Your task to perform on an android device: turn pop-ups on in chrome Image 0: 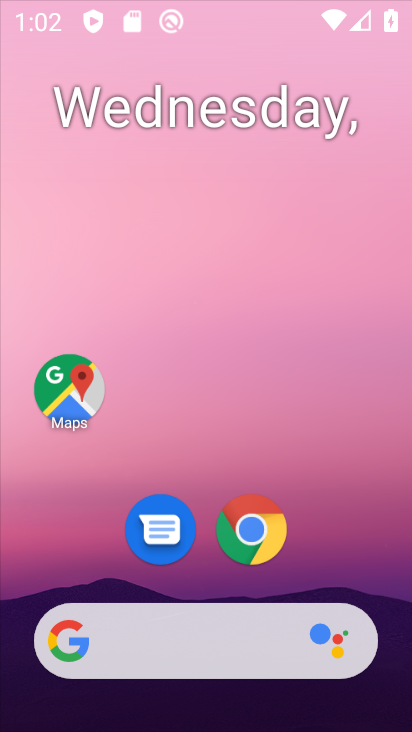
Step 0: click (268, 87)
Your task to perform on an android device: turn pop-ups on in chrome Image 1: 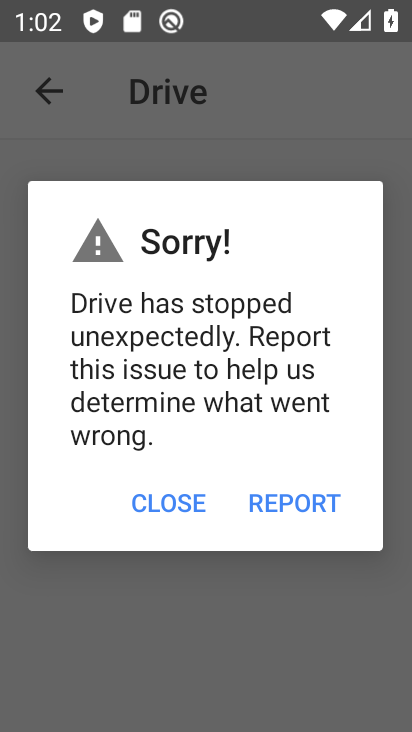
Step 1: press home button
Your task to perform on an android device: turn pop-ups on in chrome Image 2: 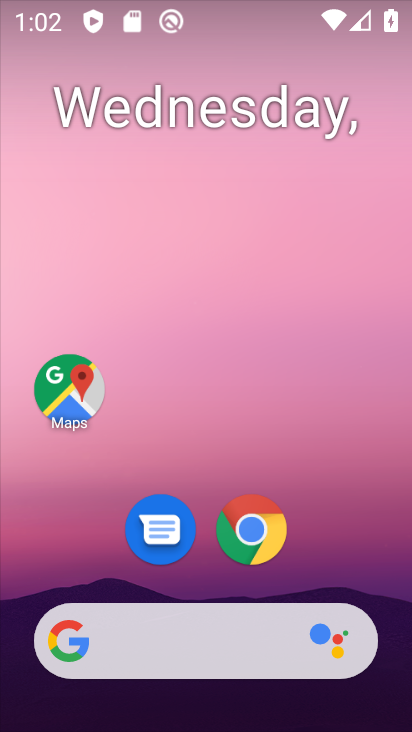
Step 2: click (240, 531)
Your task to perform on an android device: turn pop-ups on in chrome Image 3: 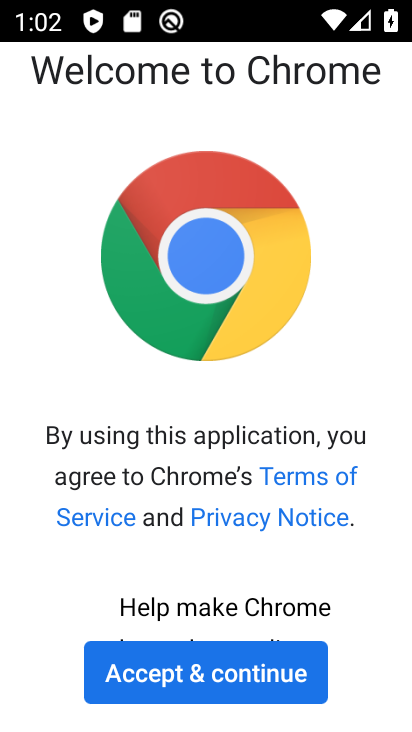
Step 3: click (194, 658)
Your task to perform on an android device: turn pop-ups on in chrome Image 4: 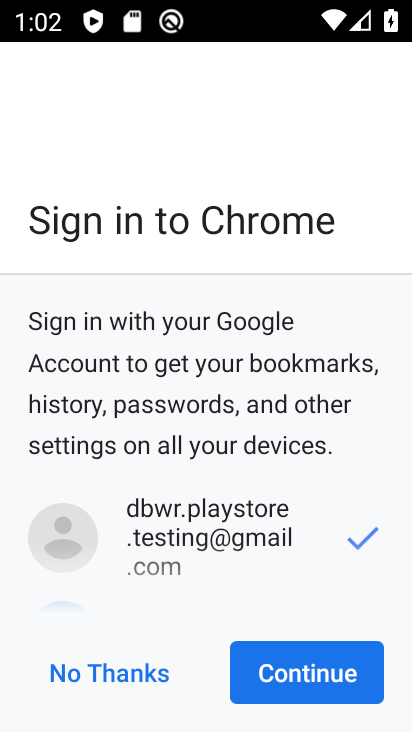
Step 4: click (279, 687)
Your task to perform on an android device: turn pop-ups on in chrome Image 5: 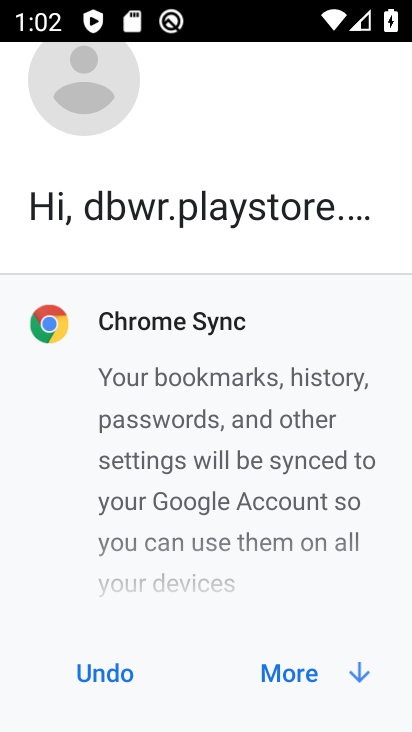
Step 5: click (279, 687)
Your task to perform on an android device: turn pop-ups on in chrome Image 6: 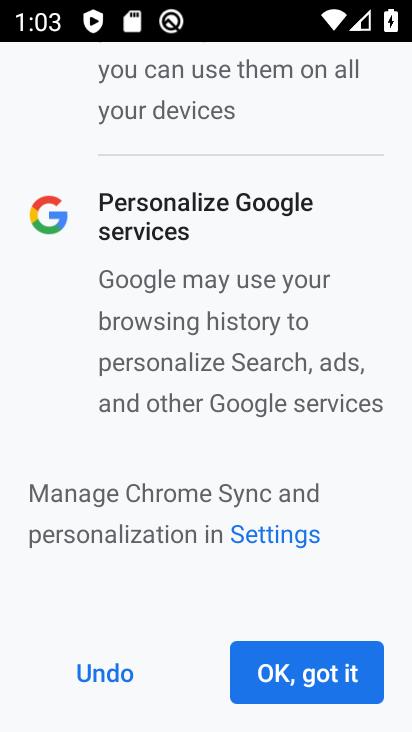
Step 6: click (279, 687)
Your task to perform on an android device: turn pop-ups on in chrome Image 7: 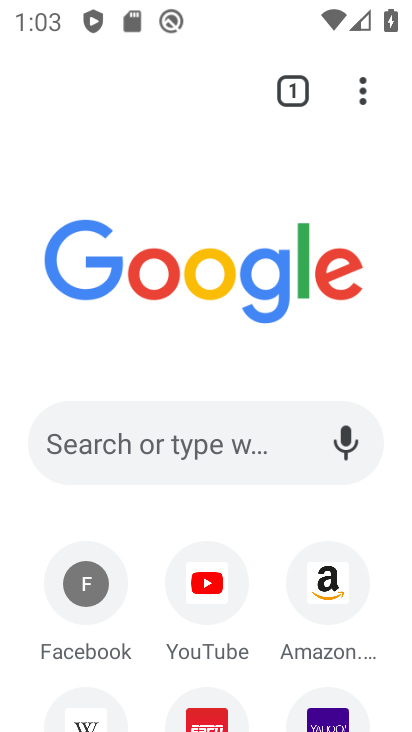
Step 7: click (343, 79)
Your task to perform on an android device: turn pop-ups on in chrome Image 8: 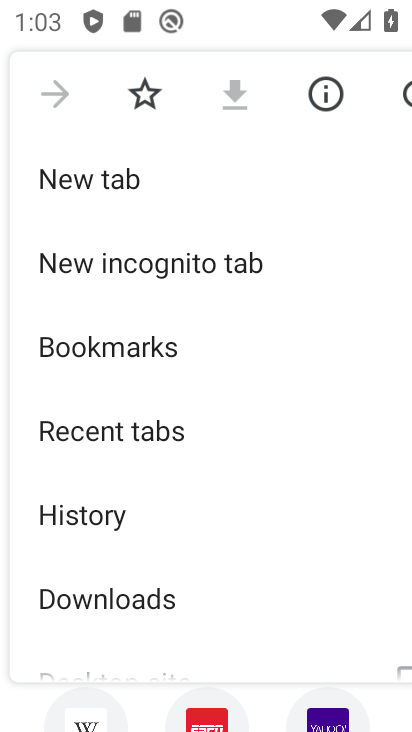
Step 8: drag from (126, 563) to (162, 235)
Your task to perform on an android device: turn pop-ups on in chrome Image 9: 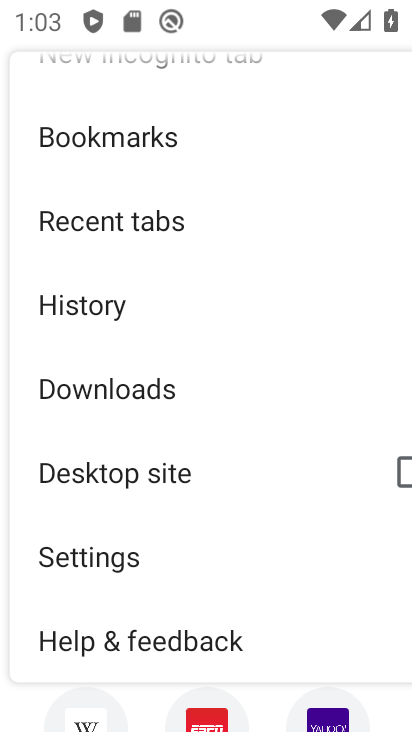
Step 9: click (105, 553)
Your task to perform on an android device: turn pop-ups on in chrome Image 10: 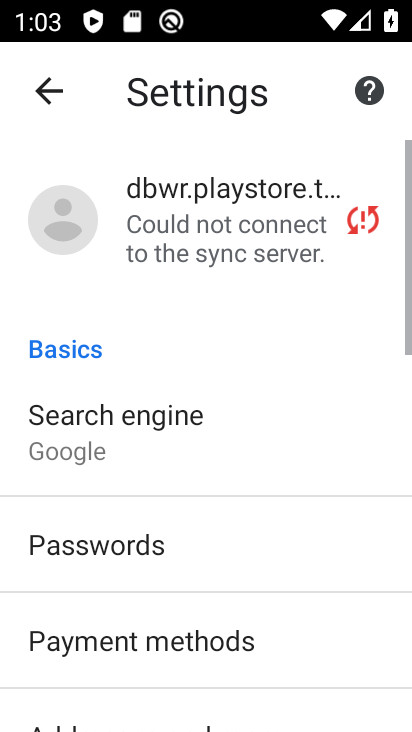
Step 10: drag from (105, 553) to (177, 93)
Your task to perform on an android device: turn pop-ups on in chrome Image 11: 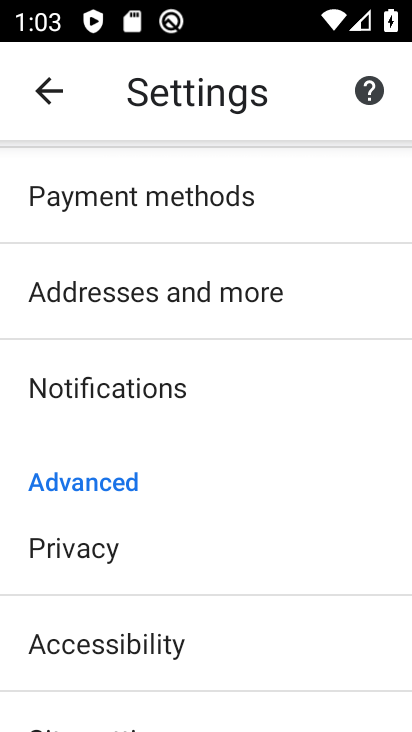
Step 11: drag from (164, 540) to (170, 271)
Your task to perform on an android device: turn pop-ups on in chrome Image 12: 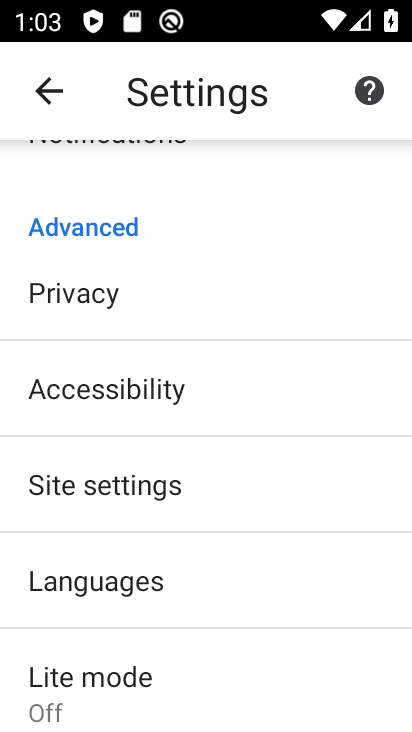
Step 12: click (176, 502)
Your task to perform on an android device: turn pop-ups on in chrome Image 13: 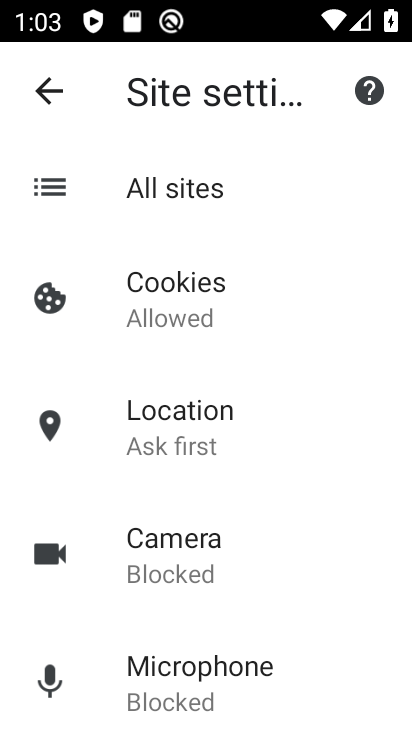
Step 13: drag from (226, 701) to (299, 183)
Your task to perform on an android device: turn pop-ups on in chrome Image 14: 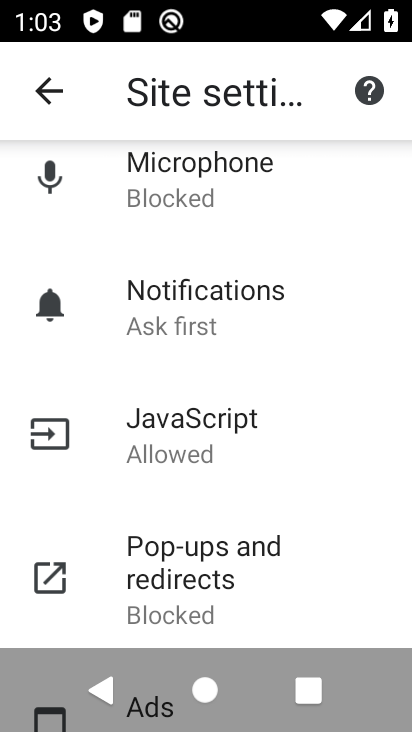
Step 14: click (167, 602)
Your task to perform on an android device: turn pop-ups on in chrome Image 15: 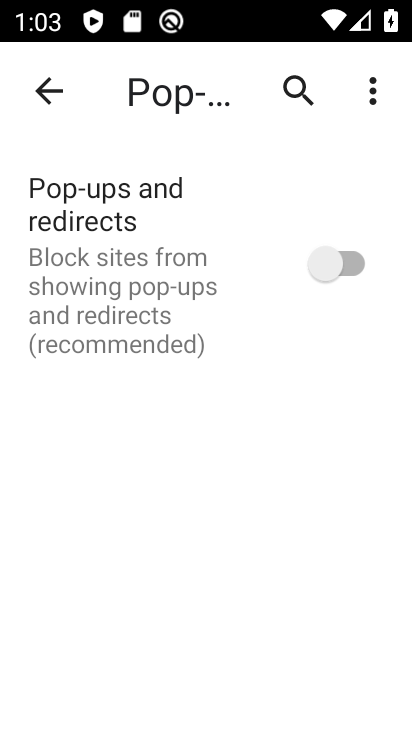
Step 15: click (344, 255)
Your task to perform on an android device: turn pop-ups on in chrome Image 16: 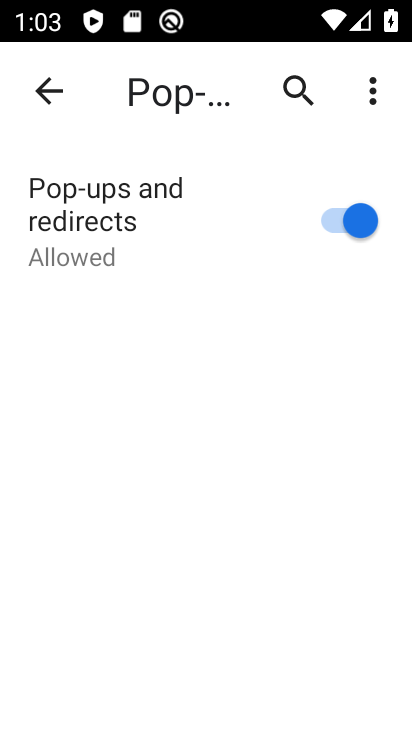
Step 16: task complete